Your task to perform on an android device: toggle priority inbox in the gmail app Image 0: 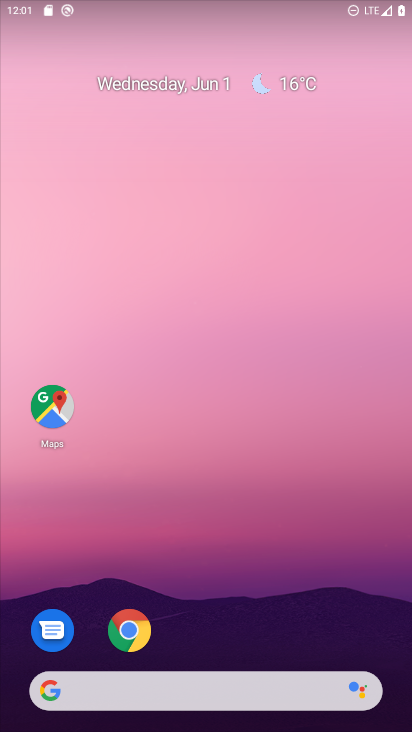
Step 0: drag from (229, 590) to (183, 67)
Your task to perform on an android device: toggle priority inbox in the gmail app Image 1: 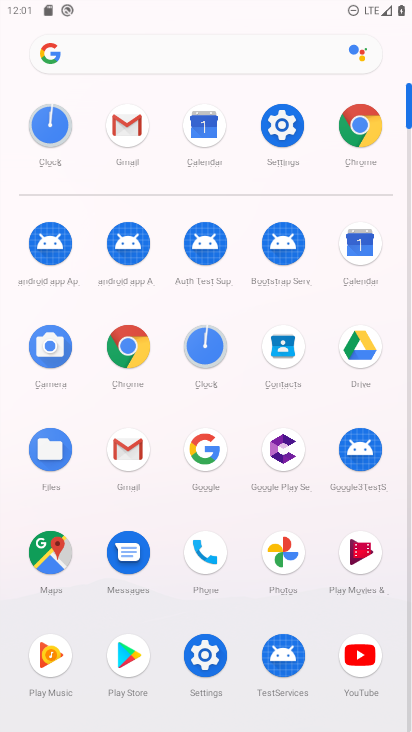
Step 1: click (126, 119)
Your task to perform on an android device: toggle priority inbox in the gmail app Image 2: 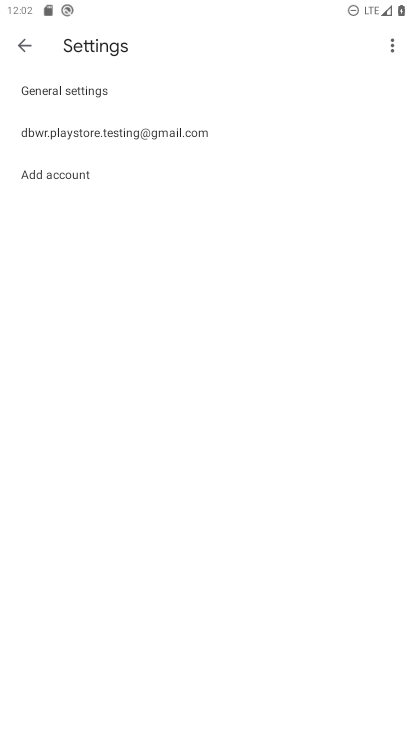
Step 2: click (89, 119)
Your task to perform on an android device: toggle priority inbox in the gmail app Image 3: 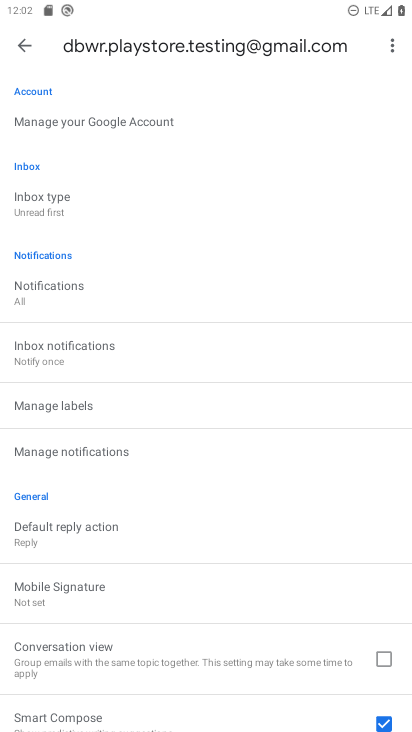
Step 3: drag from (105, 182) to (166, 551)
Your task to perform on an android device: toggle priority inbox in the gmail app Image 4: 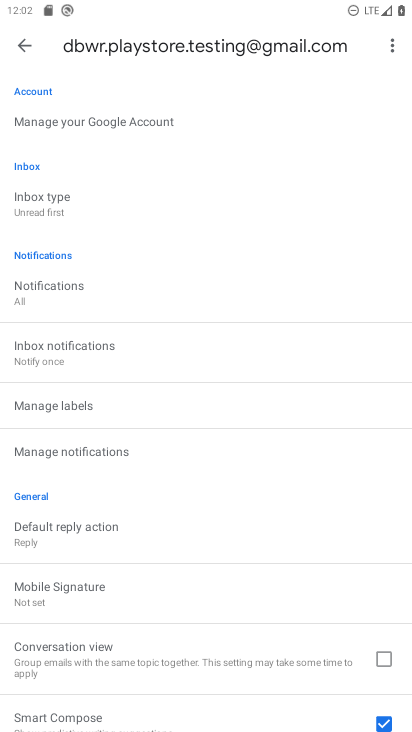
Step 4: click (61, 203)
Your task to perform on an android device: toggle priority inbox in the gmail app Image 5: 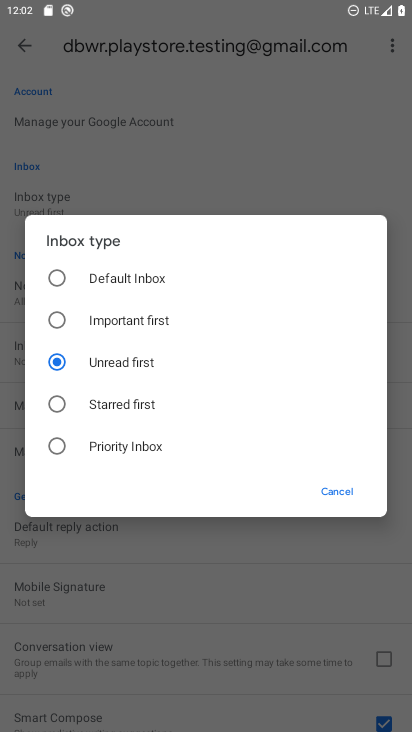
Step 5: click (98, 447)
Your task to perform on an android device: toggle priority inbox in the gmail app Image 6: 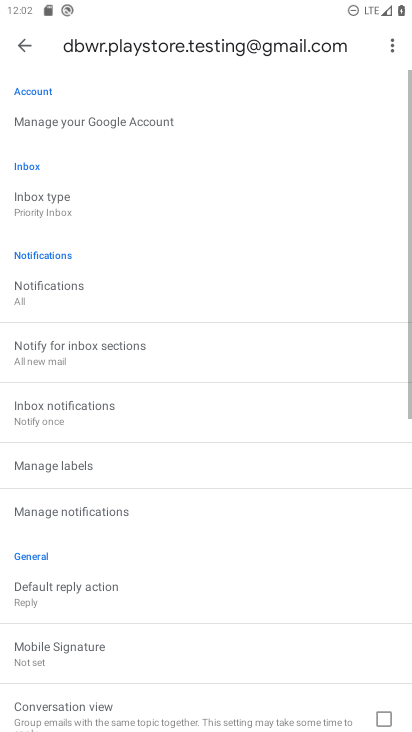
Step 6: task complete